Your task to perform on an android device: turn off location Image 0: 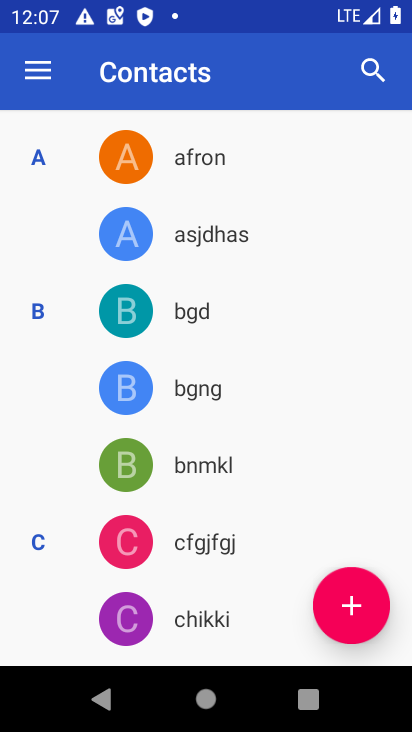
Step 0: press home button
Your task to perform on an android device: turn off location Image 1: 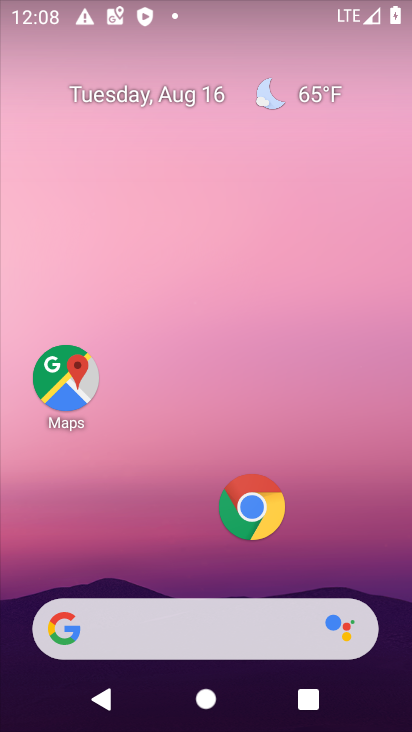
Step 1: drag from (171, 563) to (162, 160)
Your task to perform on an android device: turn off location Image 2: 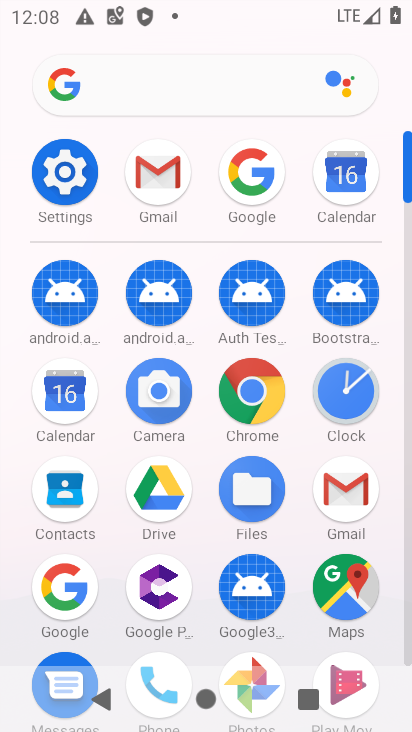
Step 2: click (65, 169)
Your task to perform on an android device: turn off location Image 3: 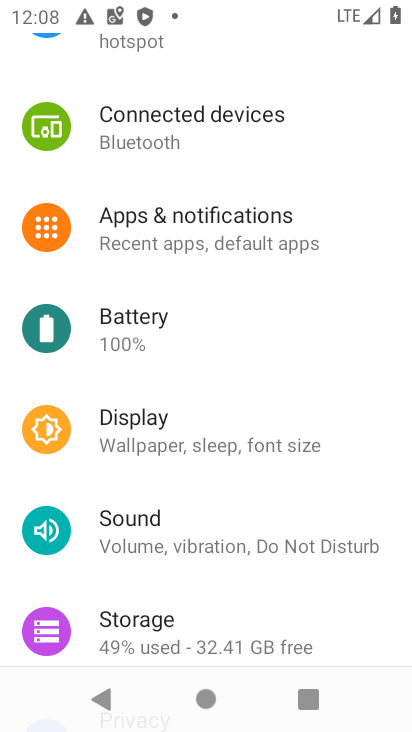
Step 3: drag from (214, 601) to (188, 332)
Your task to perform on an android device: turn off location Image 4: 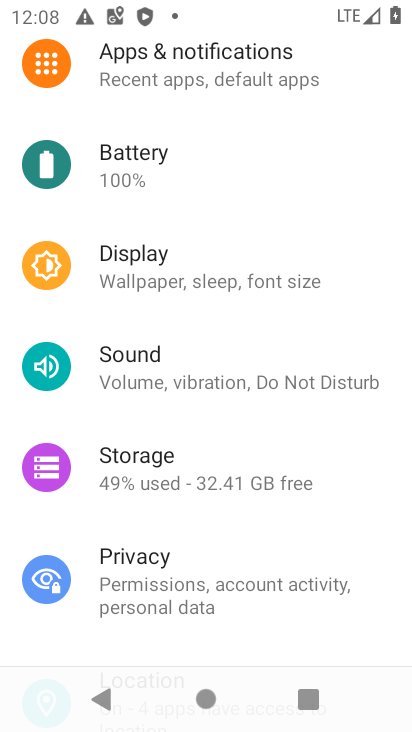
Step 4: drag from (200, 518) to (185, 211)
Your task to perform on an android device: turn off location Image 5: 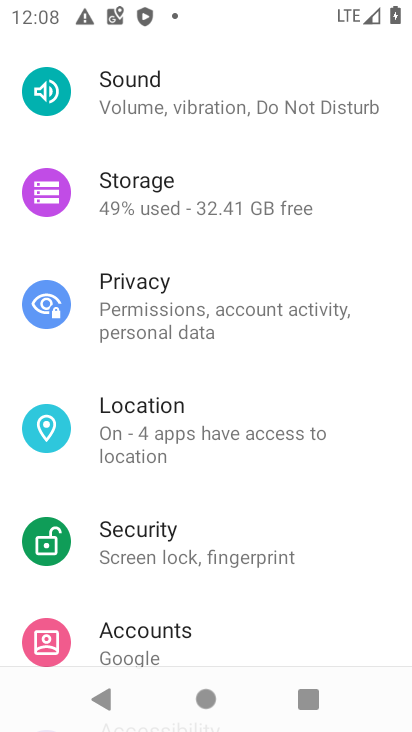
Step 5: click (151, 404)
Your task to perform on an android device: turn off location Image 6: 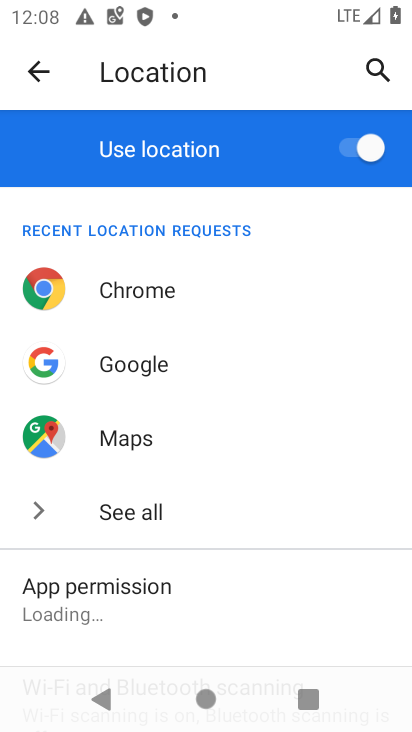
Step 6: click (353, 150)
Your task to perform on an android device: turn off location Image 7: 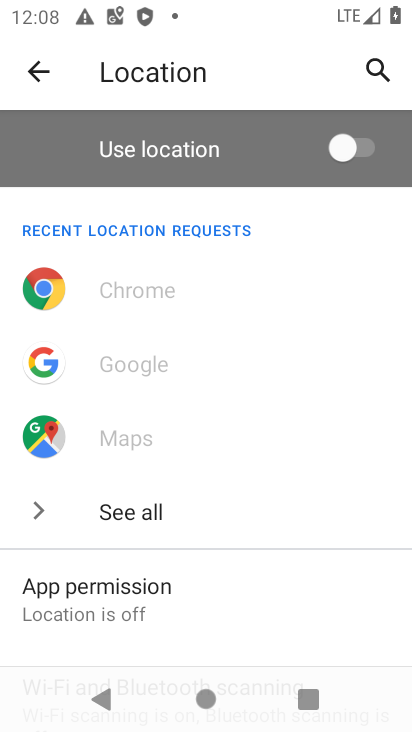
Step 7: task complete